Your task to perform on an android device: Open the phone app and click the voicemail tab. Image 0: 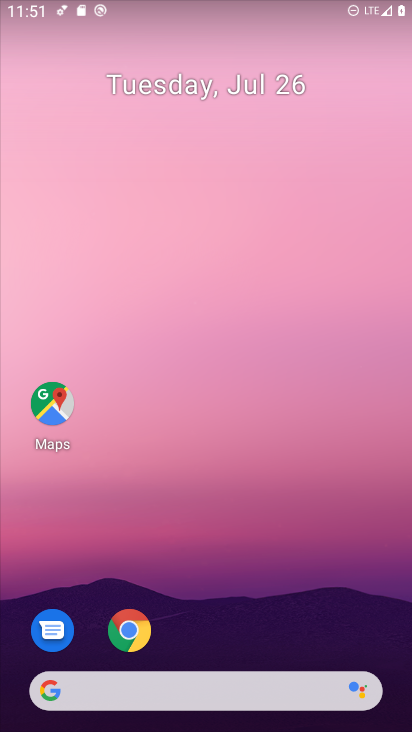
Step 0: drag from (376, 636) to (330, 97)
Your task to perform on an android device: Open the phone app and click the voicemail tab. Image 1: 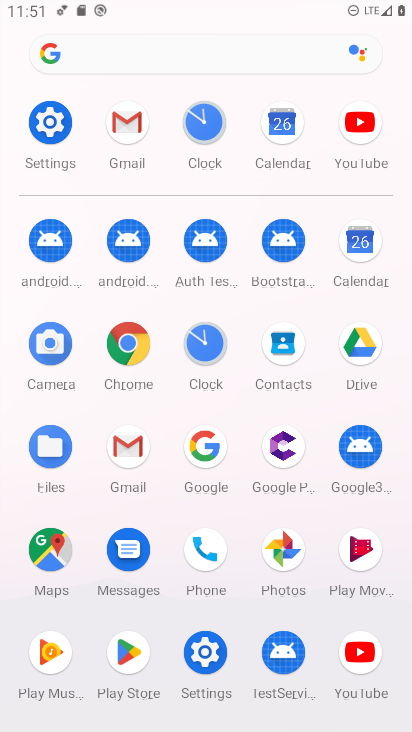
Step 1: click (204, 552)
Your task to perform on an android device: Open the phone app and click the voicemail tab. Image 2: 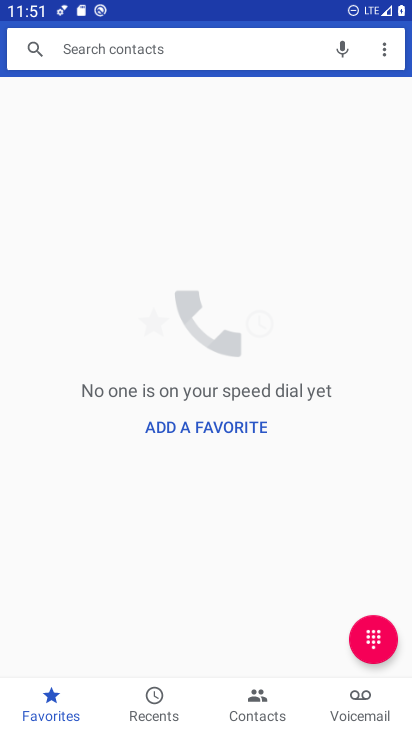
Step 2: click (357, 708)
Your task to perform on an android device: Open the phone app and click the voicemail tab. Image 3: 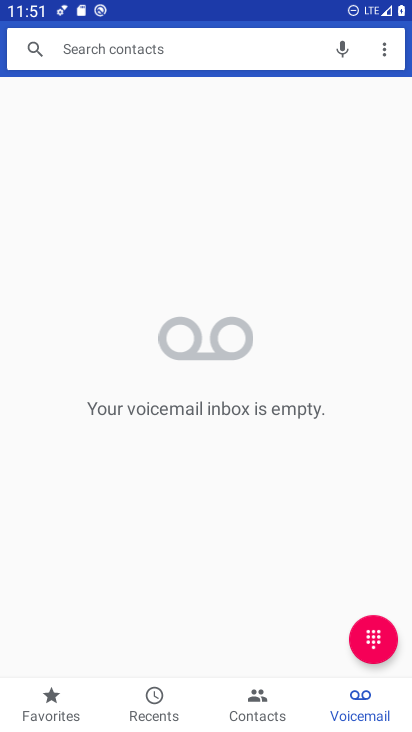
Step 3: task complete